Your task to perform on an android device: empty trash in the gmail app Image 0: 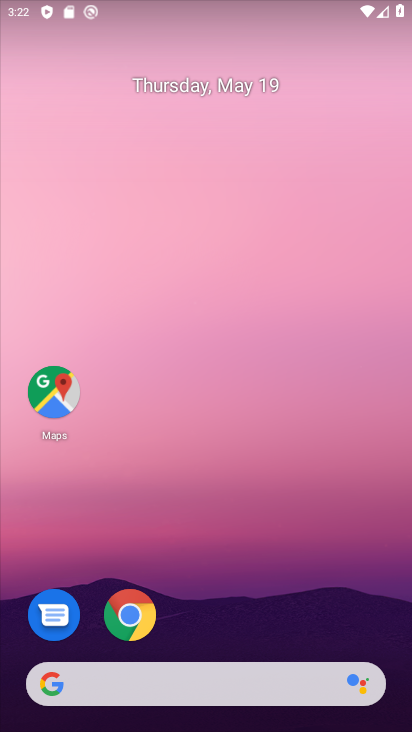
Step 0: drag from (369, 603) to (190, 117)
Your task to perform on an android device: empty trash in the gmail app Image 1: 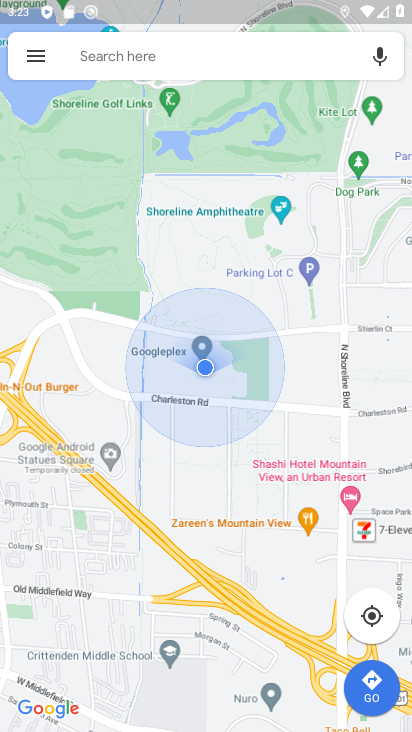
Step 1: press home button
Your task to perform on an android device: empty trash in the gmail app Image 2: 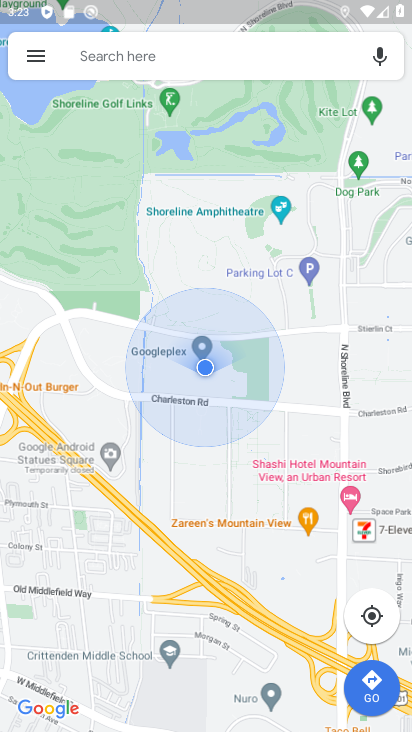
Step 2: press home button
Your task to perform on an android device: empty trash in the gmail app Image 3: 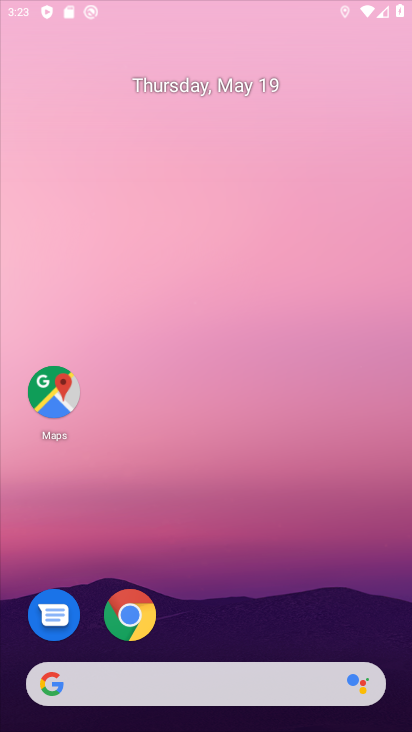
Step 3: press home button
Your task to perform on an android device: empty trash in the gmail app Image 4: 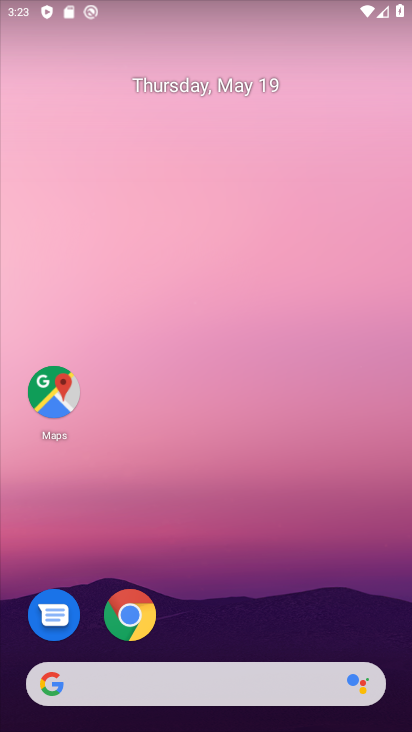
Step 4: drag from (262, 567) to (388, 23)
Your task to perform on an android device: empty trash in the gmail app Image 5: 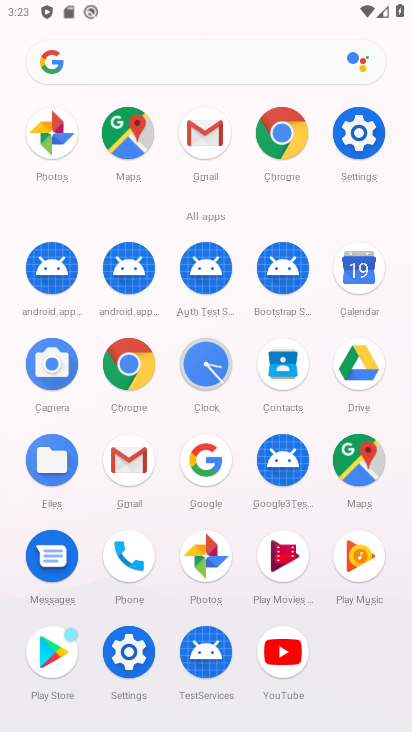
Step 5: click (130, 464)
Your task to perform on an android device: empty trash in the gmail app Image 6: 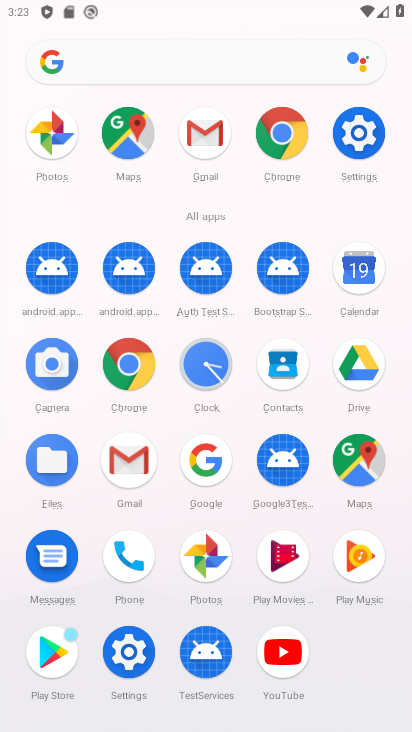
Step 6: click (130, 464)
Your task to perform on an android device: empty trash in the gmail app Image 7: 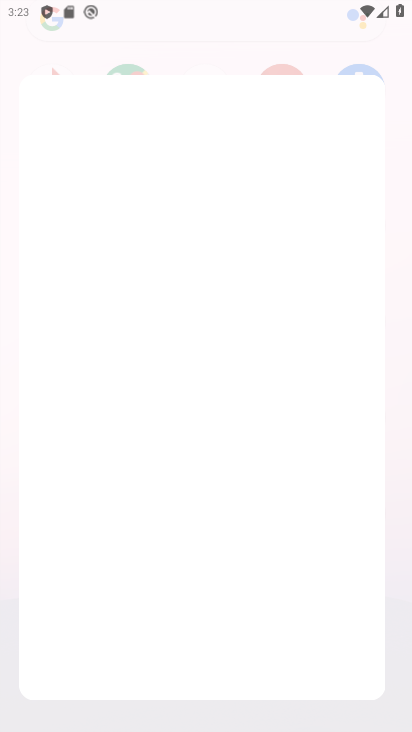
Step 7: click (130, 464)
Your task to perform on an android device: empty trash in the gmail app Image 8: 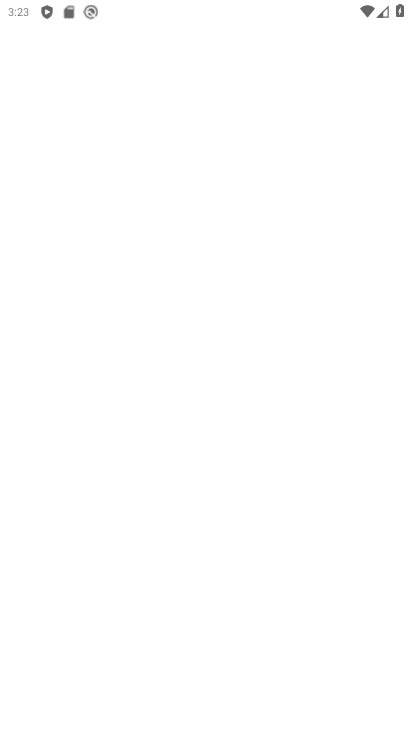
Step 8: click (130, 464)
Your task to perform on an android device: empty trash in the gmail app Image 9: 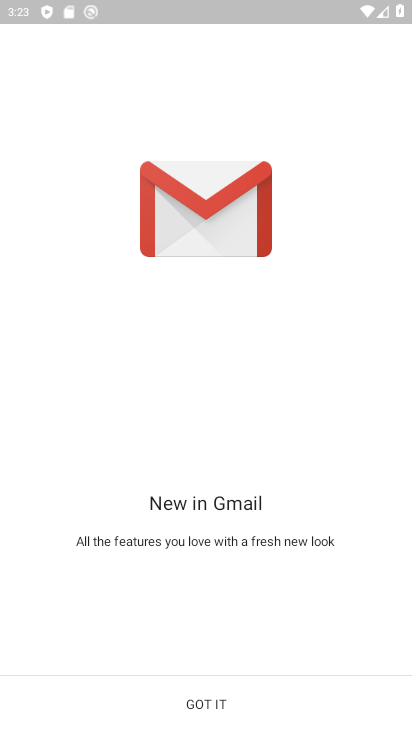
Step 9: click (211, 693)
Your task to perform on an android device: empty trash in the gmail app Image 10: 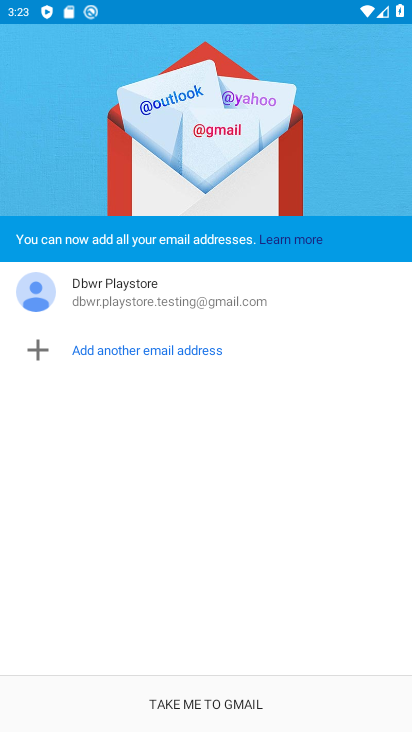
Step 10: click (208, 703)
Your task to perform on an android device: empty trash in the gmail app Image 11: 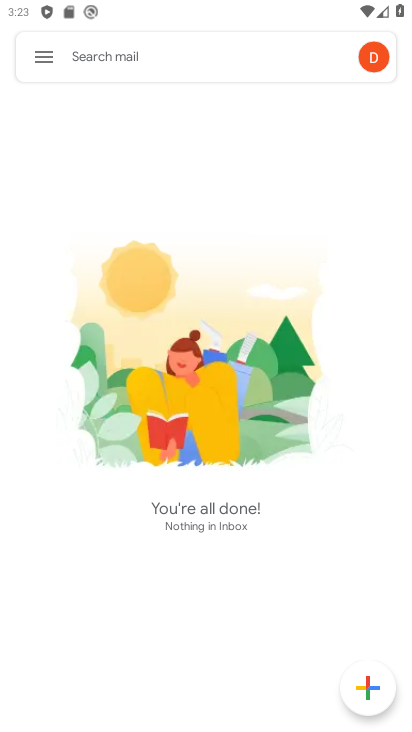
Step 11: click (39, 50)
Your task to perform on an android device: empty trash in the gmail app Image 12: 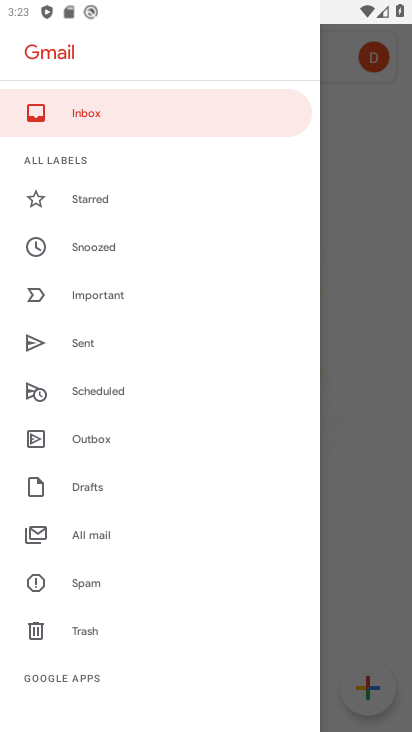
Step 12: click (83, 629)
Your task to perform on an android device: empty trash in the gmail app Image 13: 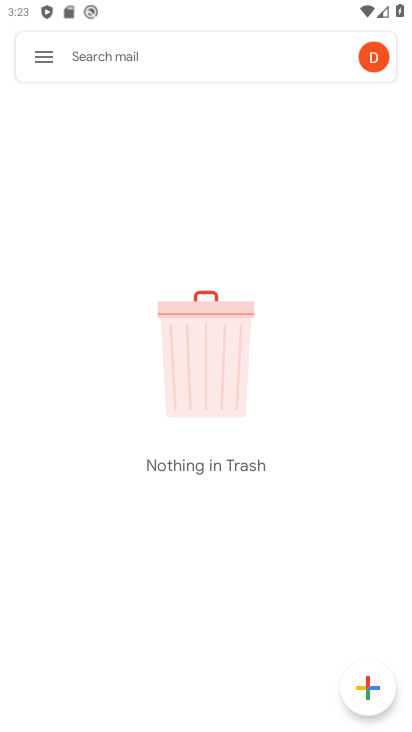
Step 13: press back button
Your task to perform on an android device: empty trash in the gmail app Image 14: 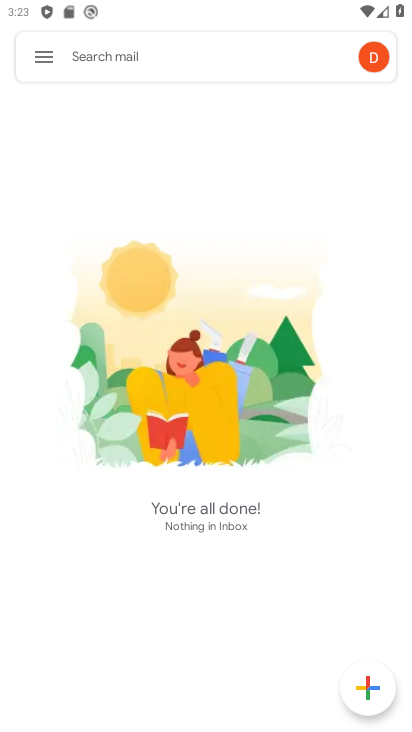
Step 14: click (34, 54)
Your task to perform on an android device: empty trash in the gmail app Image 15: 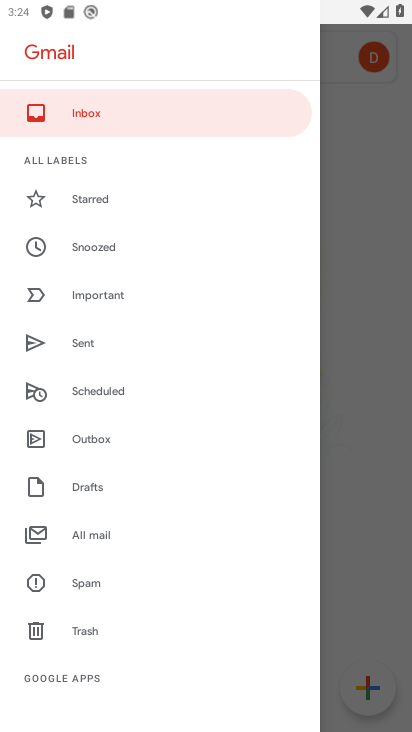
Step 15: click (80, 627)
Your task to perform on an android device: empty trash in the gmail app Image 16: 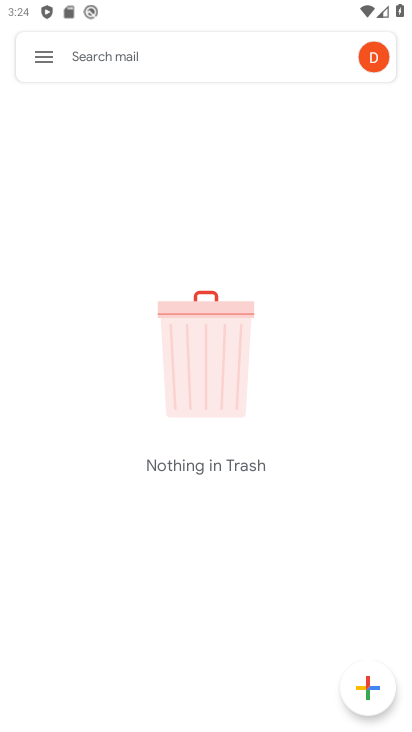
Step 16: task complete